Your task to perform on an android device: turn on priority inbox in the gmail app Image 0: 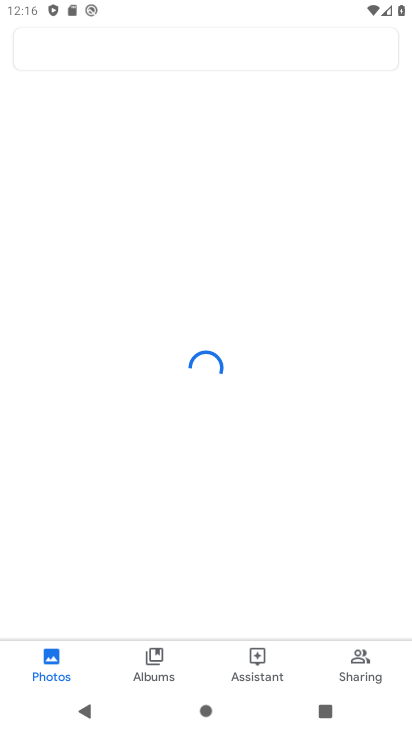
Step 0: press home button
Your task to perform on an android device: turn on priority inbox in the gmail app Image 1: 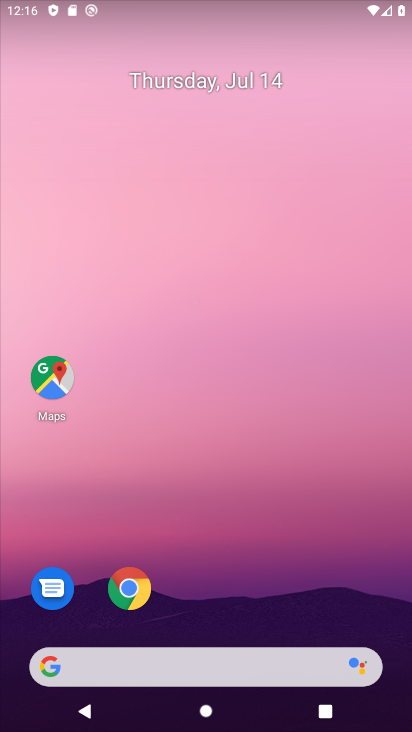
Step 1: drag from (220, 593) to (312, 89)
Your task to perform on an android device: turn on priority inbox in the gmail app Image 2: 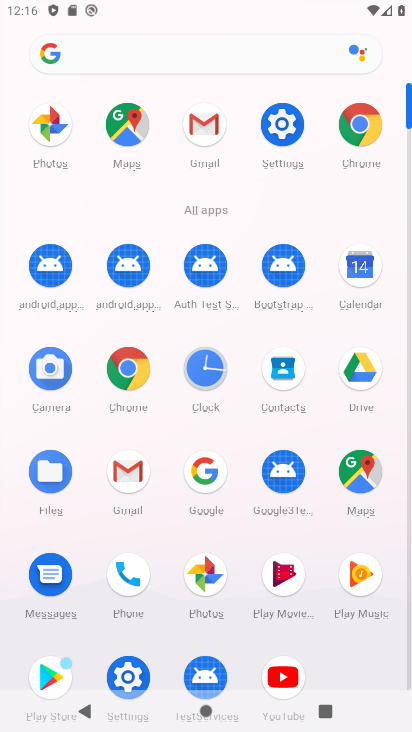
Step 2: click (130, 476)
Your task to perform on an android device: turn on priority inbox in the gmail app Image 3: 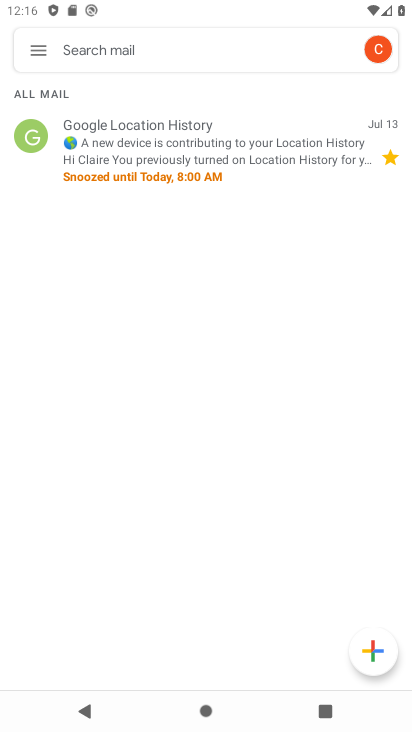
Step 3: click (32, 49)
Your task to perform on an android device: turn on priority inbox in the gmail app Image 4: 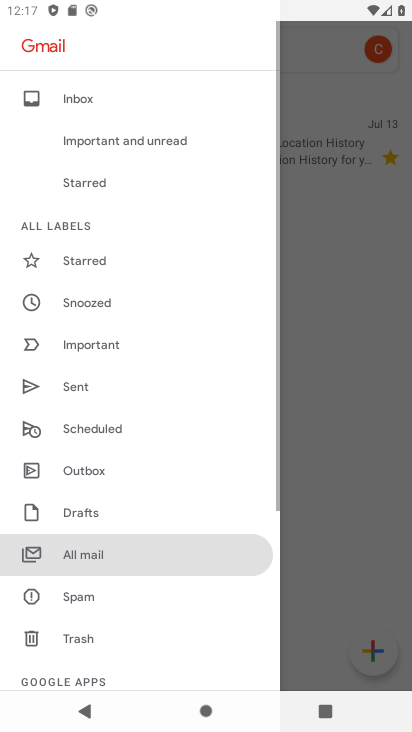
Step 4: drag from (127, 654) to (154, 290)
Your task to perform on an android device: turn on priority inbox in the gmail app Image 5: 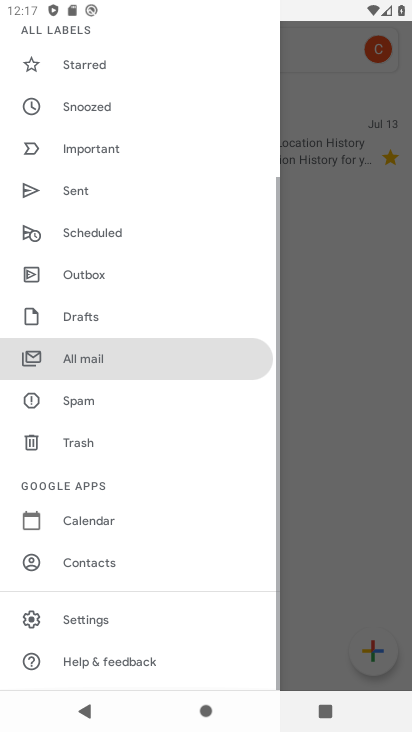
Step 5: click (101, 619)
Your task to perform on an android device: turn on priority inbox in the gmail app Image 6: 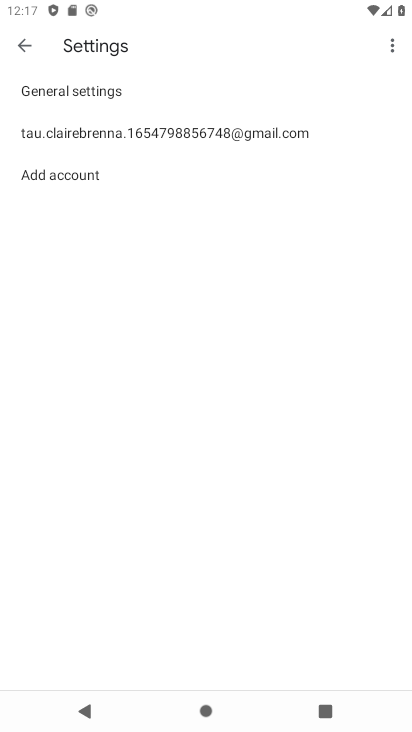
Step 6: click (108, 129)
Your task to perform on an android device: turn on priority inbox in the gmail app Image 7: 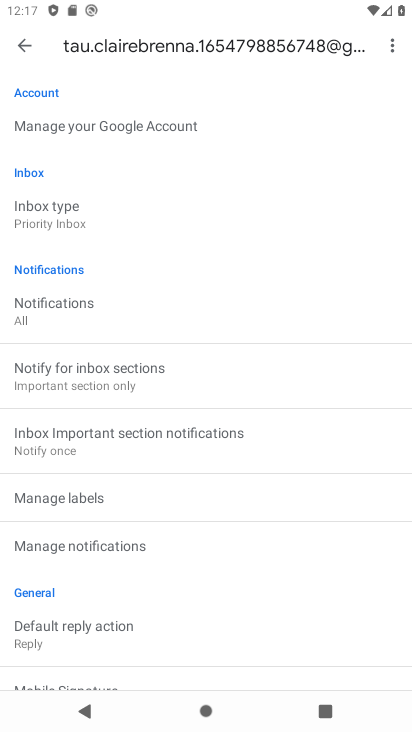
Step 7: click (88, 218)
Your task to perform on an android device: turn on priority inbox in the gmail app Image 8: 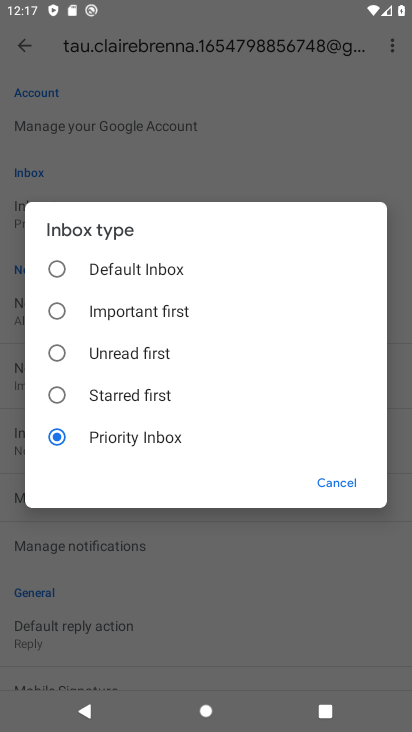
Step 8: task complete